Your task to perform on an android device: turn off smart reply in the gmail app Image 0: 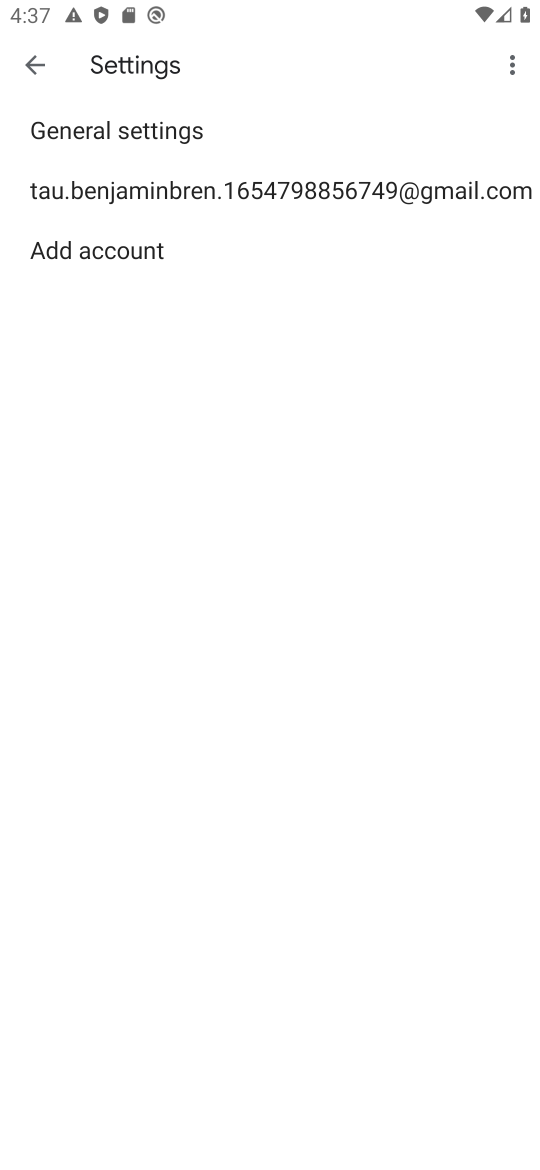
Step 0: press home button
Your task to perform on an android device: turn off smart reply in the gmail app Image 1: 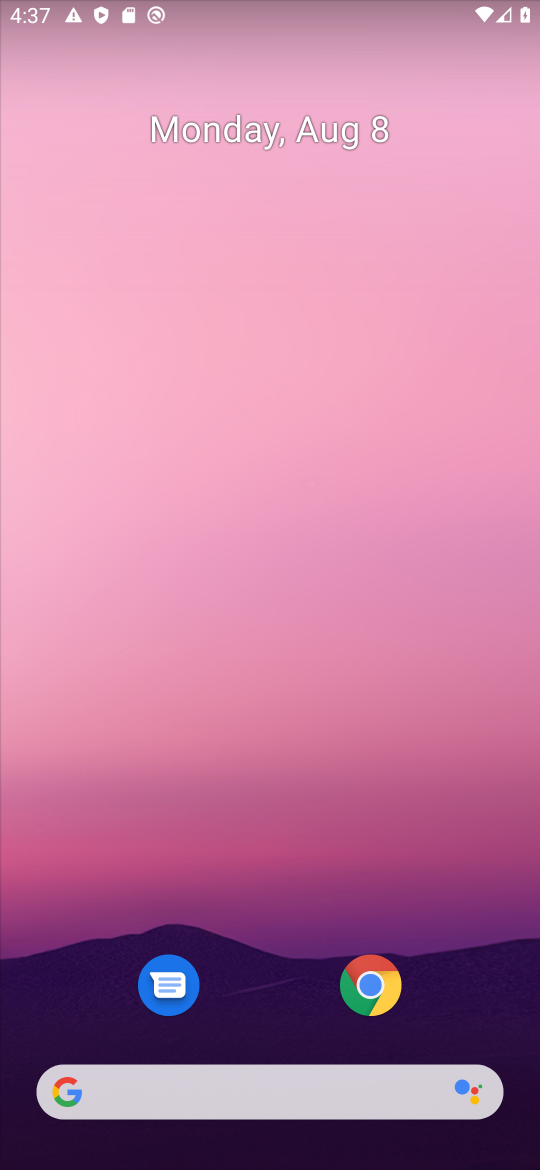
Step 1: drag from (228, 778) to (277, 307)
Your task to perform on an android device: turn off smart reply in the gmail app Image 2: 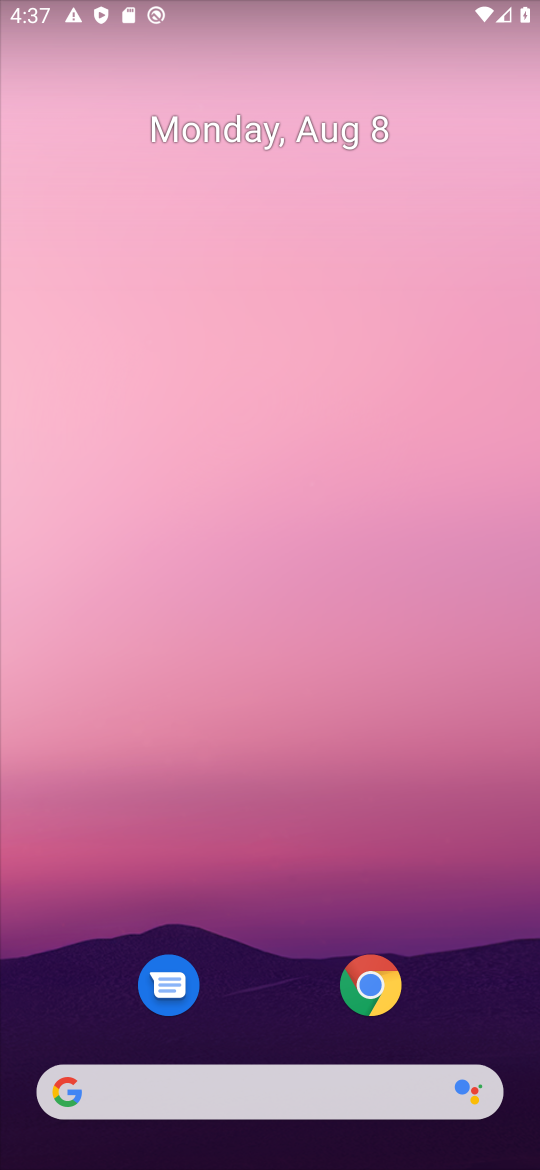
Step 2: drag from (284, 836) to (265, 263)
Your task to perform on an android device: turn off smart reply in the gmail app Image 3: 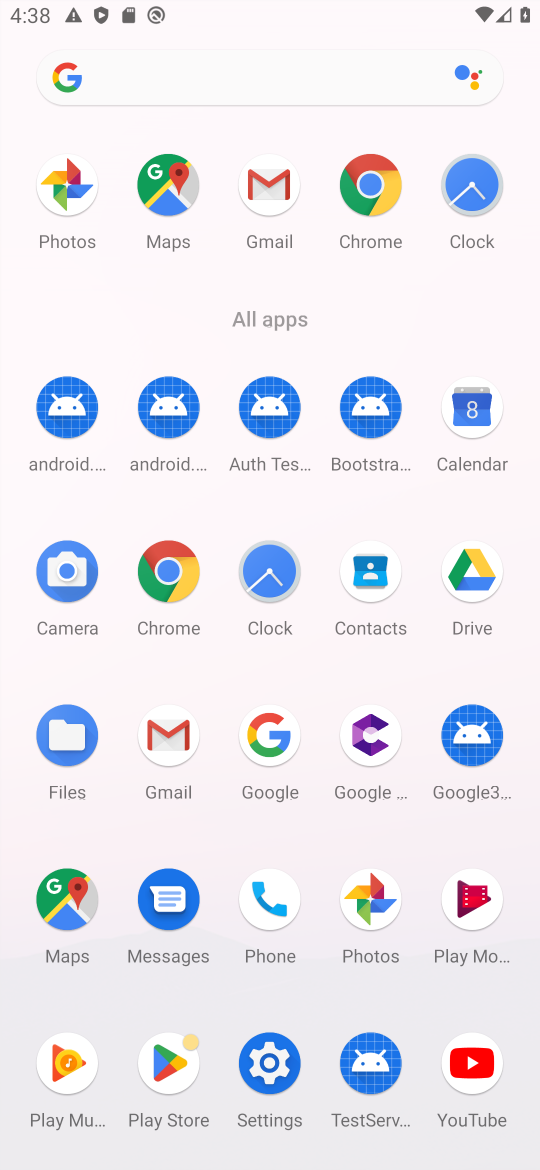
Step 3: click (149, 741)
Your task to perform on an android device: turn off smart reply in the gmail app Image 4: 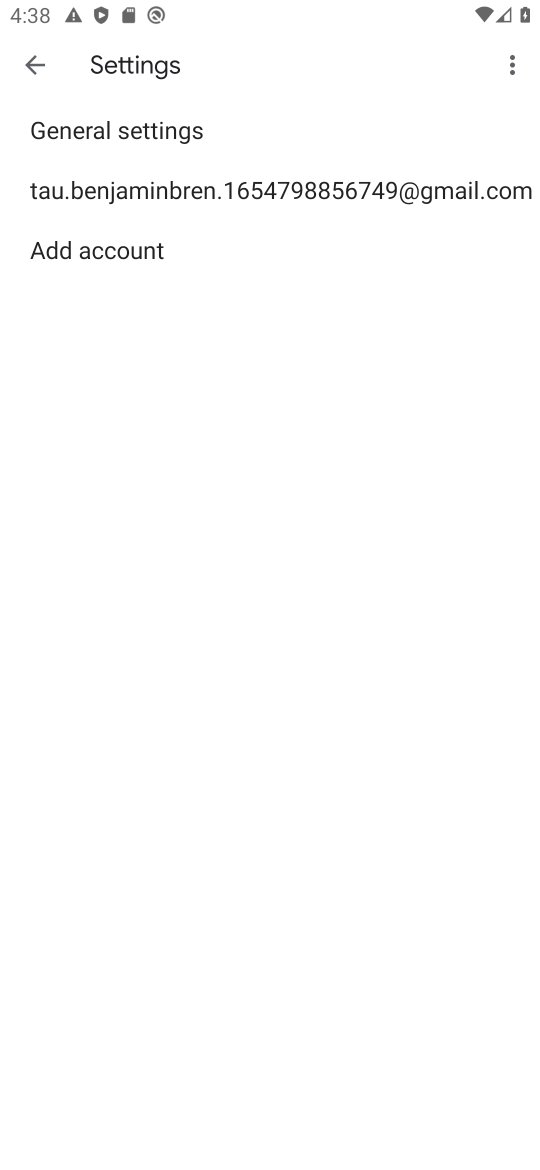
Step 4: click (39, 74)
Your task to perform on an android device: turn off smart reply in the gmail app Image 5: 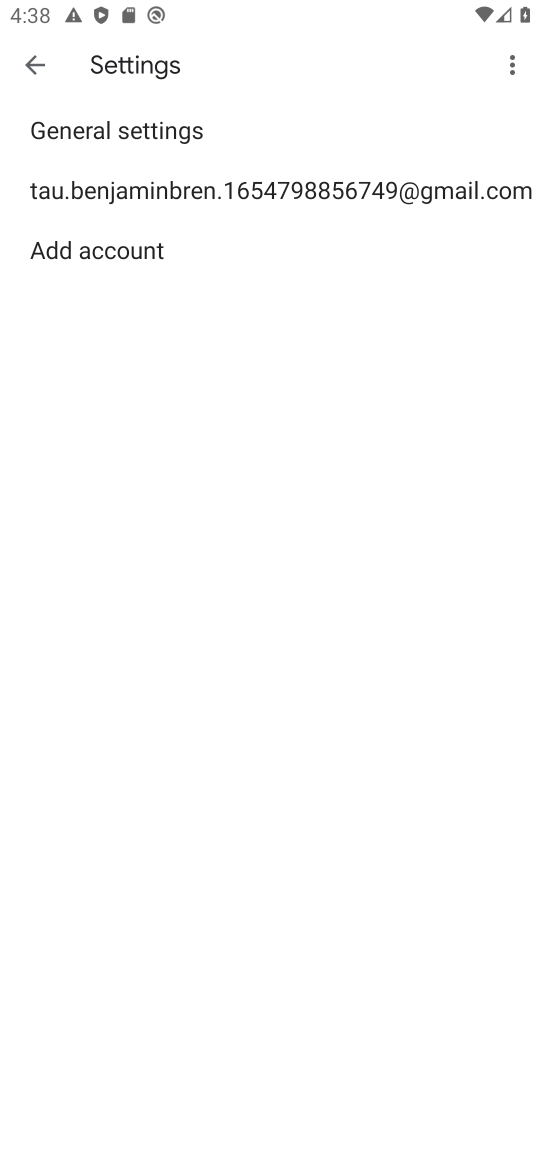
Step 5: click (42, 60)
Your task to perform on an android device: turn off smart reply in the gmail app Image 6: 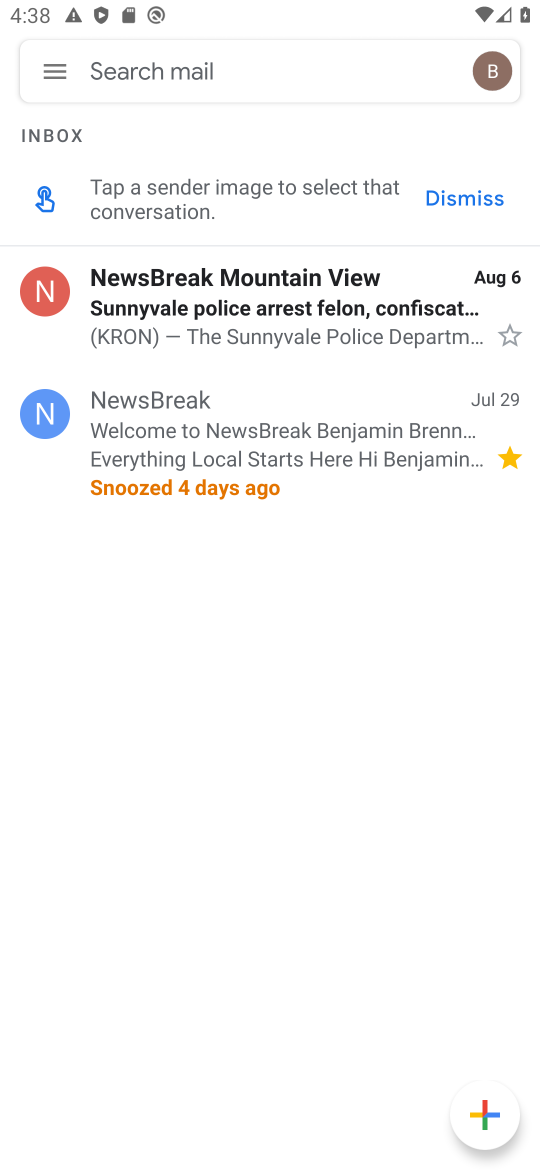
Step 6: task complete